Your task to perform on an android device: turn on data saver in the chrome app Image 0: 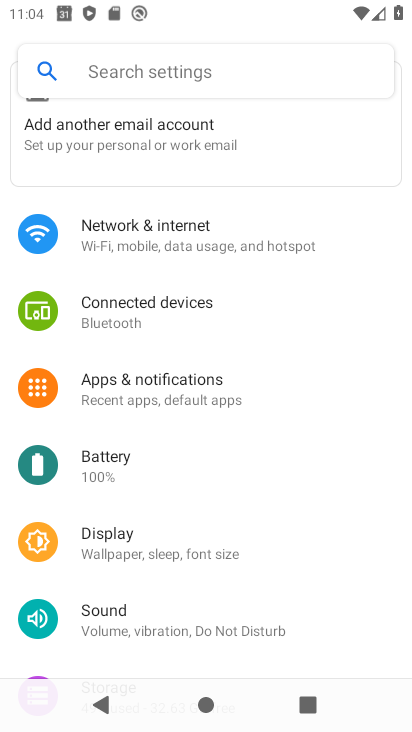
Step 0: press home button
Your task to perform on an android device: turn on data saver in the chrome app Image 1: 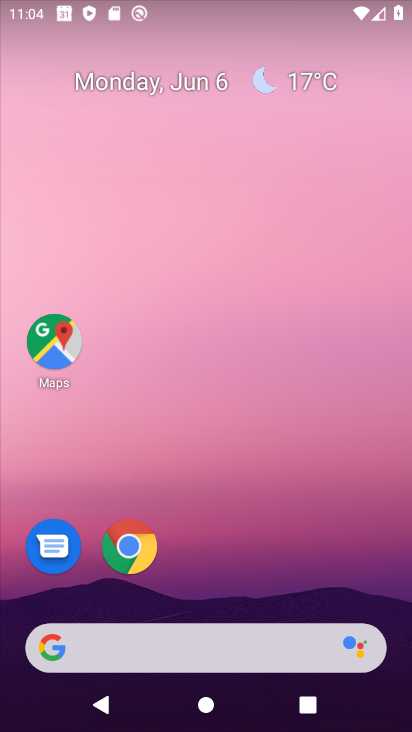
Step 1: click (127, 547)
Your task to perform on an android device: turn on data saver in the chrome app Image 2: 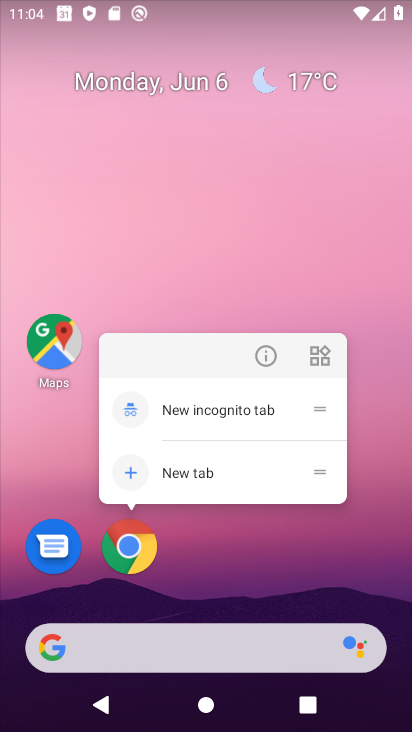
Step 2: click (127, 547)
Your task to perform on an android device: turn on data saver in the chrome app Image 3: 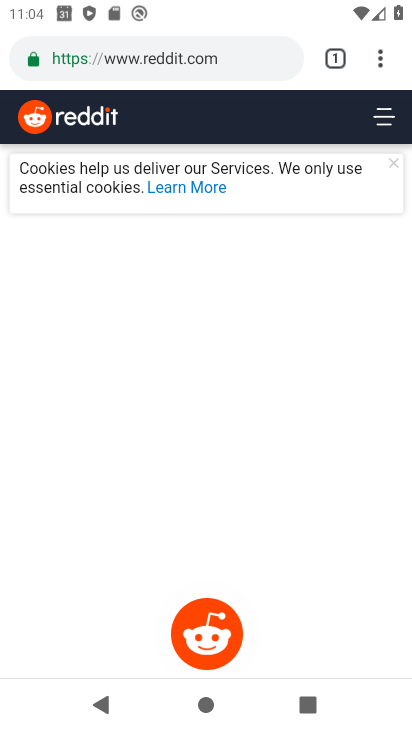
Step 3: drag from (382, 56) to (201, 576)
Your task to perform on an android device: turn on data saver in the chrome app Image 4: 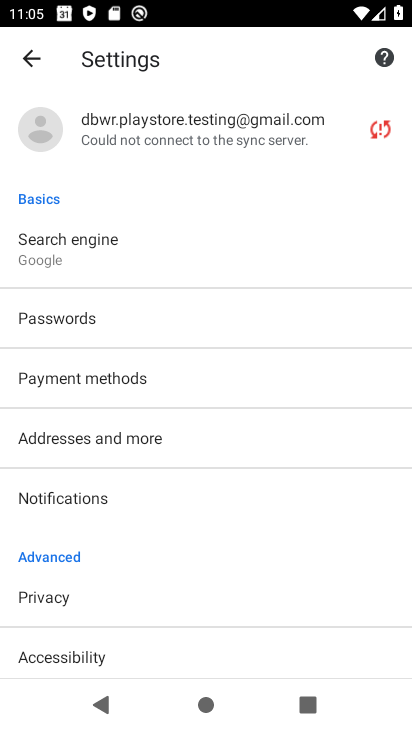
Step 4: drag from (202, 561) to (232, 174)
Your task to perform on an android device: turn on data saver in the chrome app Image 5: 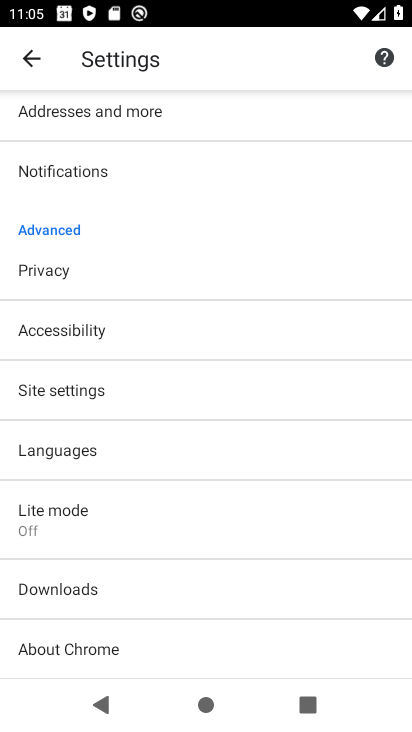
Step 5: click (99, 516)
Your task to perform on an android device: turn on data saver in the chrome app Image 6: 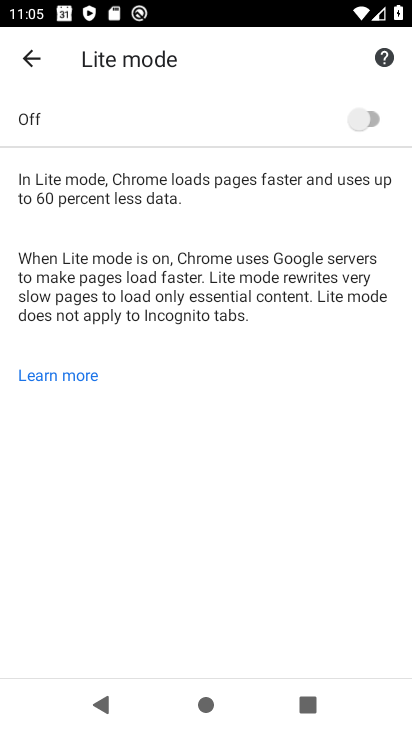
Step 6: click (377, 114)
Your task to perform on an android device: turn on data saver in the chrome app Image 7: 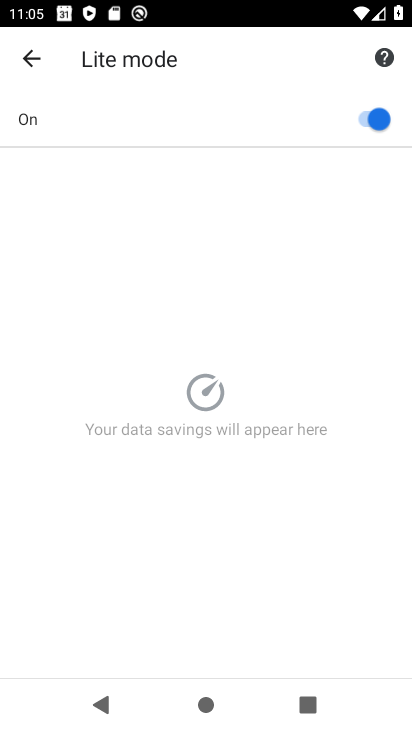
Step 7: task complete